Your task to perform on an android device: Open display settings Image 0: 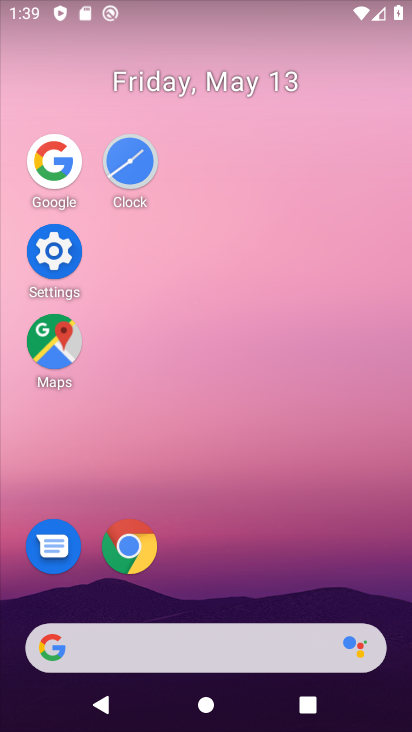
Step 0: click (55, 262)
Your task to perform on an android device: Open display settings Image 1: 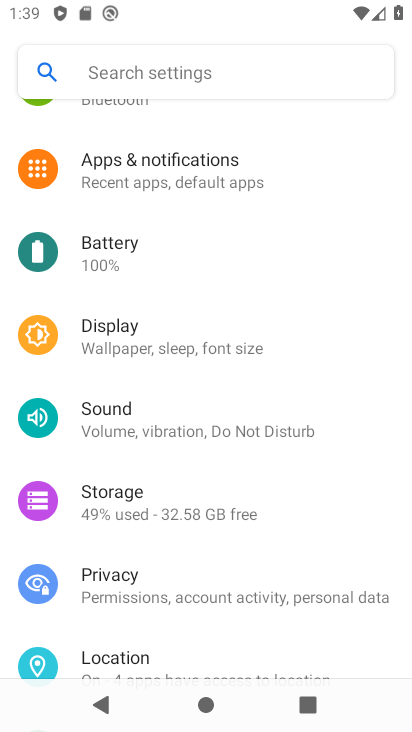
Step 1: click (210, 345)
Your task to perform on an android device: Open display settings Image 2: 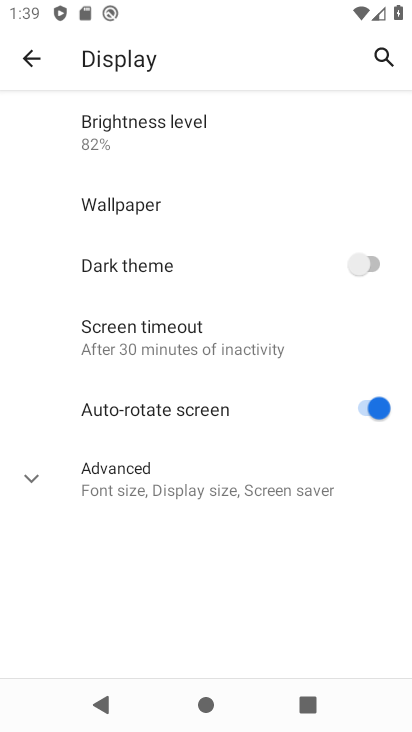
Step 2: task complete